Your task to perform on an android device: turn on translation in the chrome app Image 0: 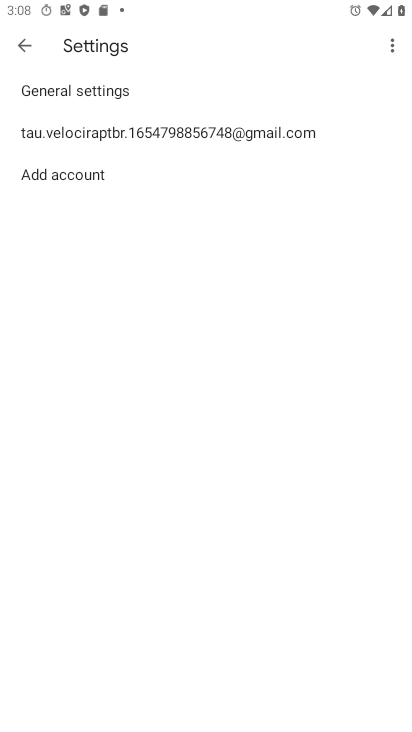
Step 0: press home button
Your task to perform on an android device: turn on translation in the chrome app Image 1: 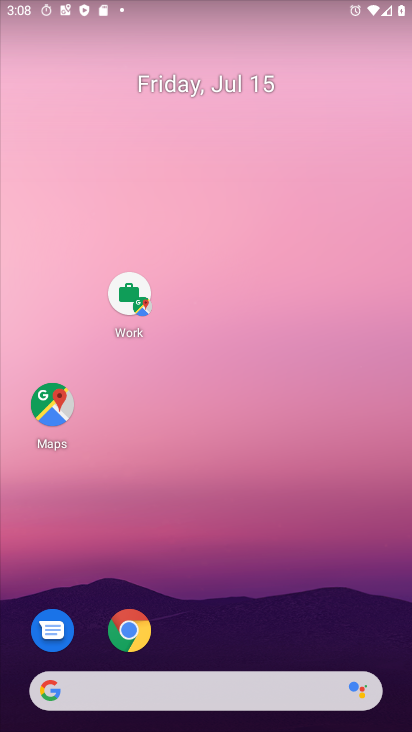
Step 1: click (122, 628)
Your task to perform on an android device: turn on translation in the chrome app Image 2: 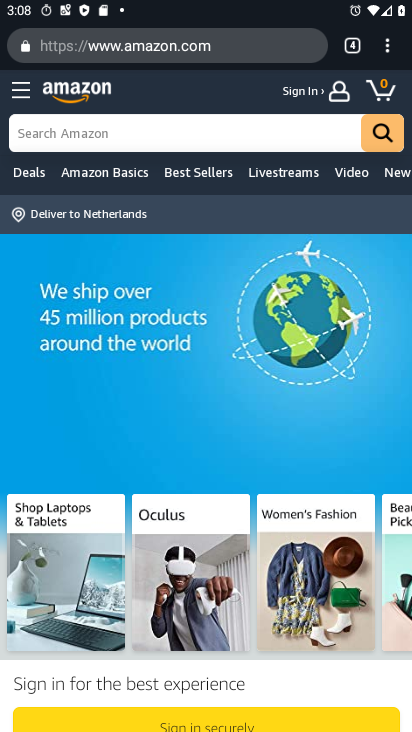
Step 2: click (20, 81)
Your task to perform on an android device: turn on translation in the chrome app Image 3: 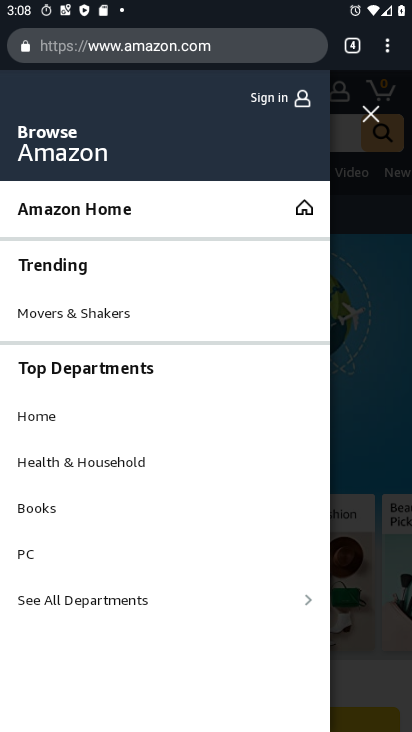
Step 3: click (388, 63)
Your task to perform on an android device: turn on translation in the chrome app Image 4: 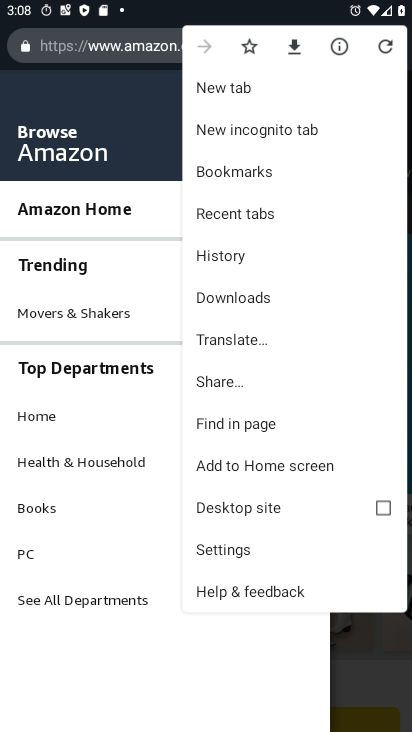
Step 4: click (239, 542)
Your task to perform on an android device: turn on translation in the chrome app Image 5: 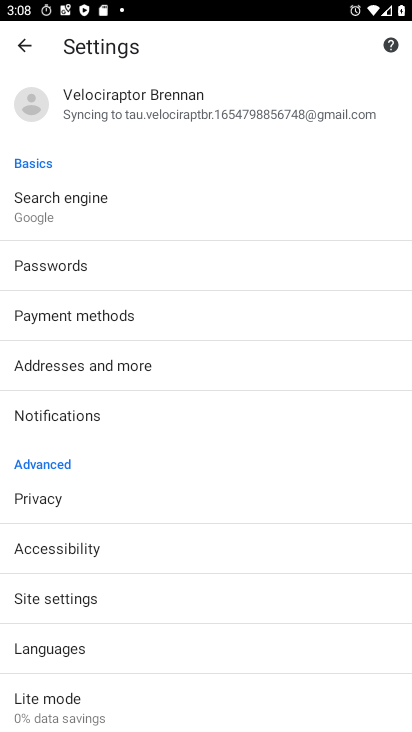
Step 5: click (76, 643)
Your task to perform on an android device: turn on translation in the chrome app Image 6: 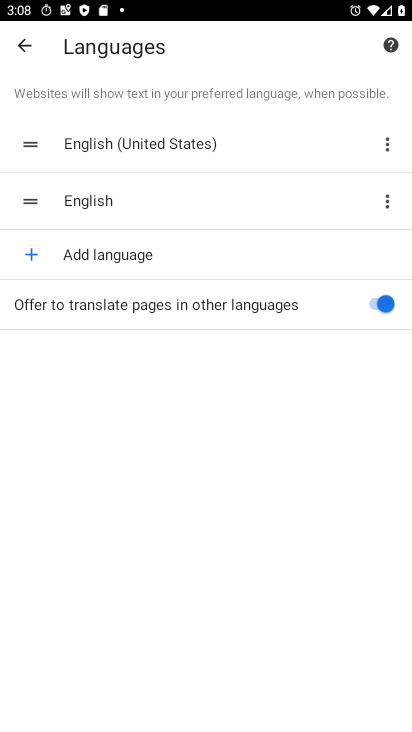
Step 6: click (369, 299)
Your task to perform on an android device: turn on translation in the chrome app Image 7: 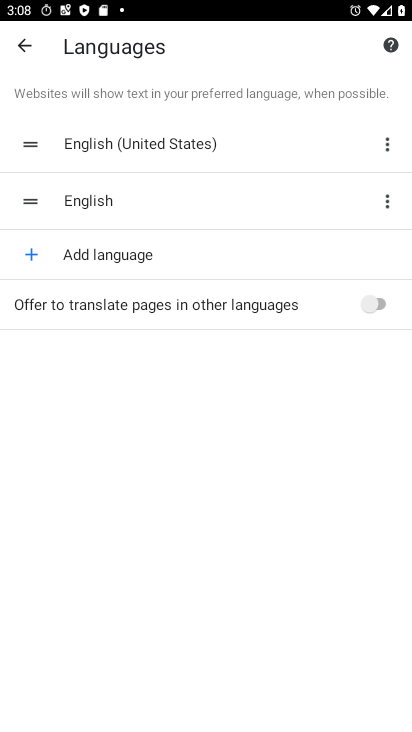
Step 7: click (386, 298)
Your task to perform on an android device: turn on translation in the chrome app Image 8: 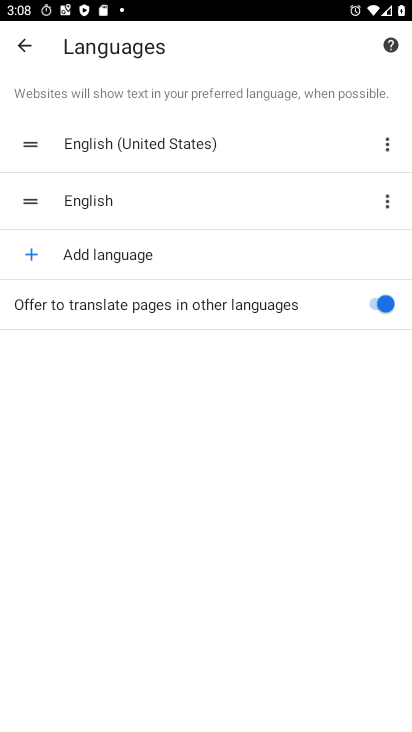
Step 8: task complete